Your task to perform on an android device: Open settings on Google Maps Image 0: 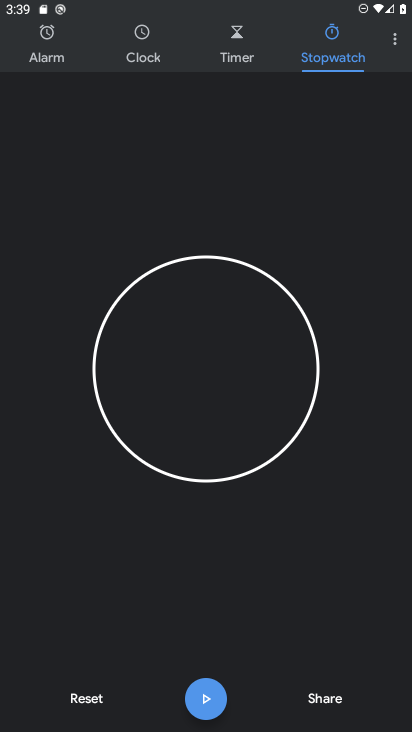
Step 0: press home button
Your task to perform on an android device: Open settings on Google Maps Image 1: 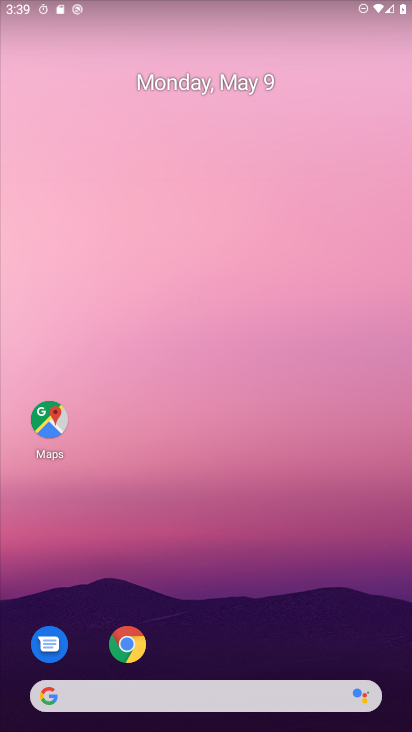
Step 1: drag from (306, 605) to (290, 161)
Your task to perform on an android device: Open settings on Google Maps Image 2: 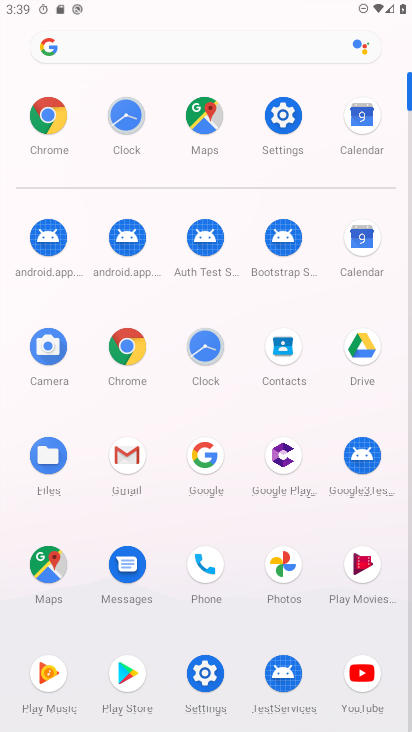
Step 2: click (285, 148)
Your task to perform on an android device: Open settings on Google Maps Image 3: 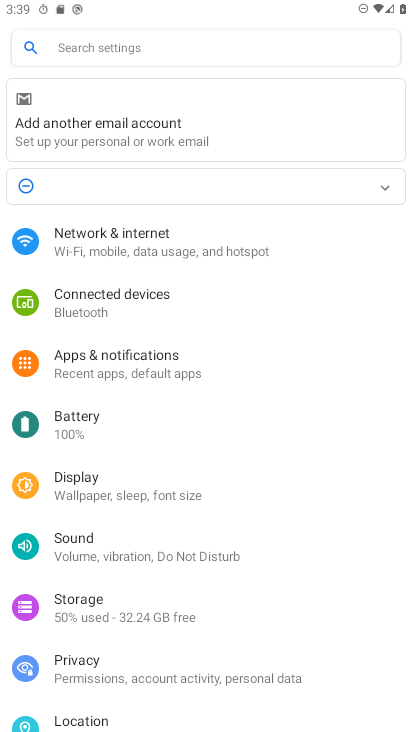
Step 3: press home button
Your task to perform on an android device: Open settings on Google Maps Image 4: 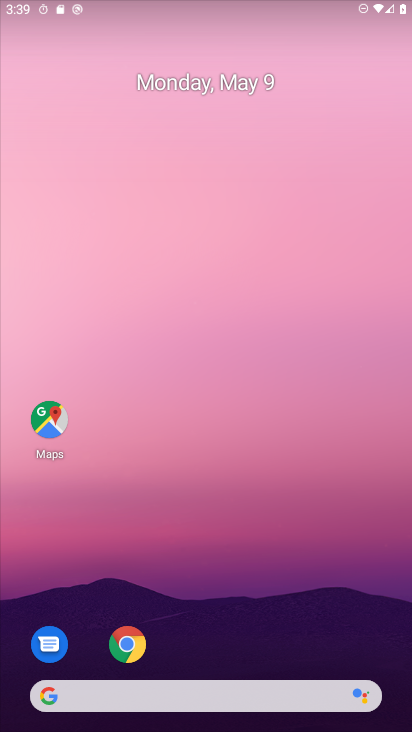
Step 4: drag from (232, 651) to (253, 60)
Your task to perform on an android device: Open settings on Google Maps Image 5: 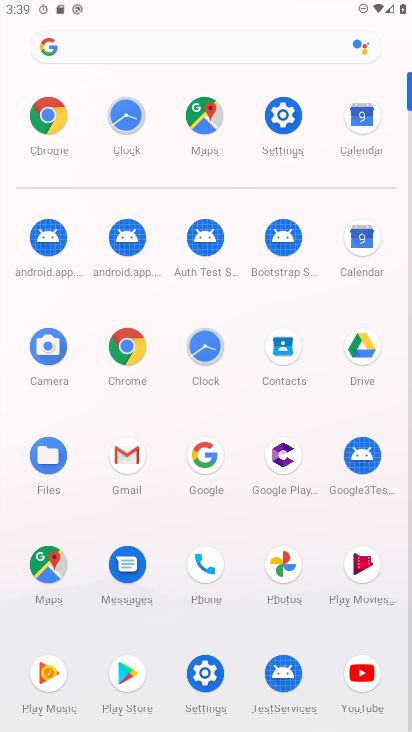
Step 5: click (61, 574)
Your task to perform on an android device: Open settings on Google Maps Image 6: 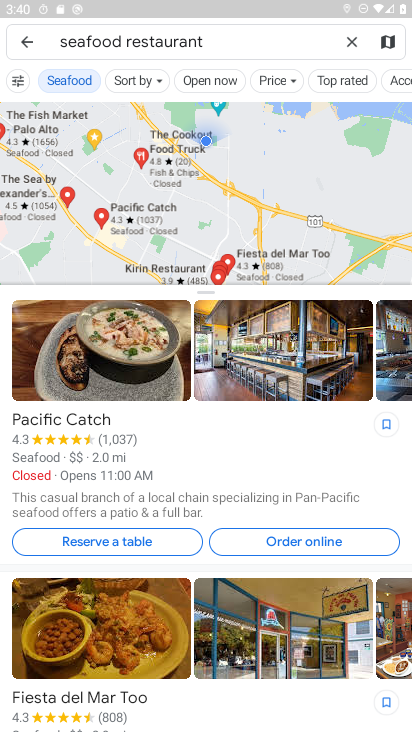
Step 6: click (34, 45)
Your task to perform on an android device: Open settings on Google Maps Image 7: 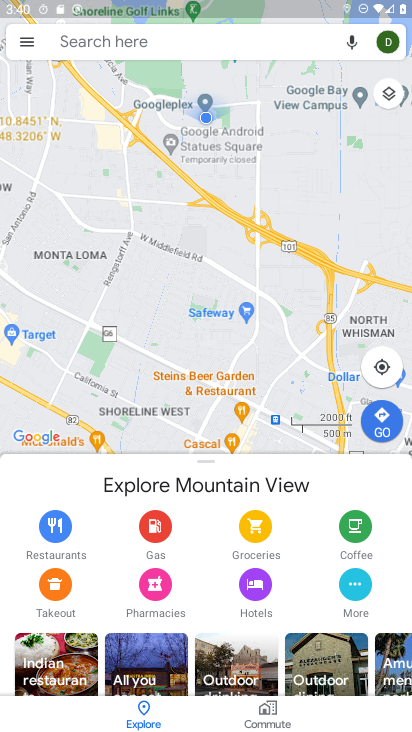
Step 7: click (28, 46)
Your task to perform on an android device: Open settings on Google Maps Image 8: 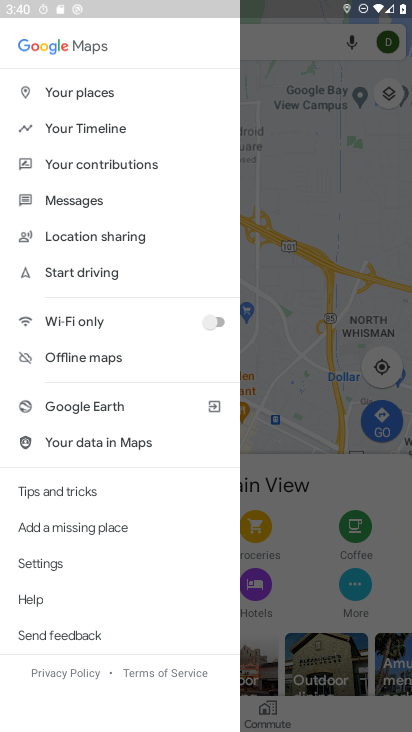
Step 8: click (78, 563)
Your task to perform on an android device: Open settings on Google Maps Image 9: 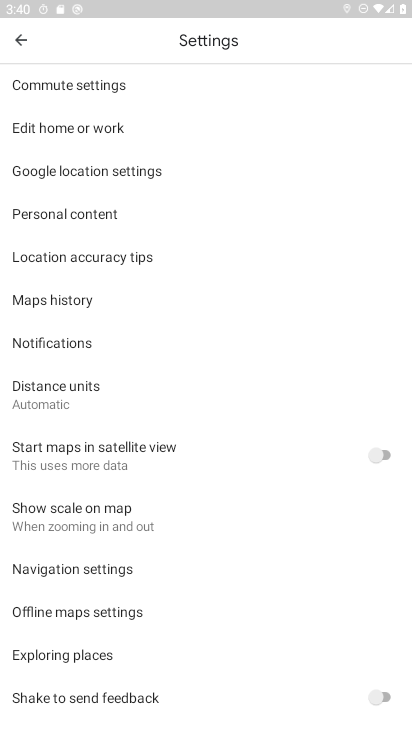
Step 9: task complete